Your task to perform on an android device: create a new album in the google photos Image 0: 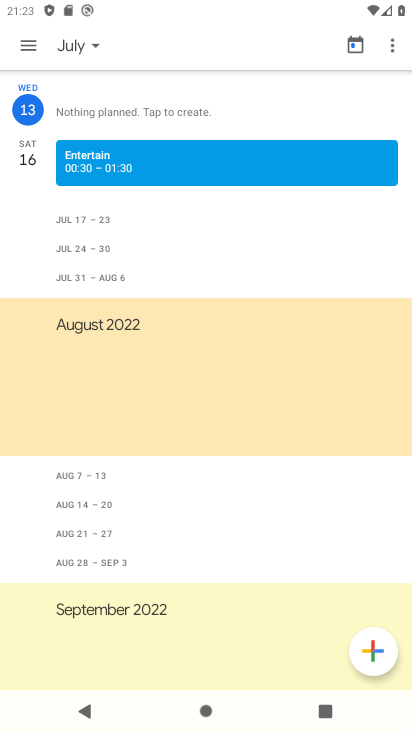
Step 0: press back button
Your task to perform on an android device: create a new album in the google photos Image 1: 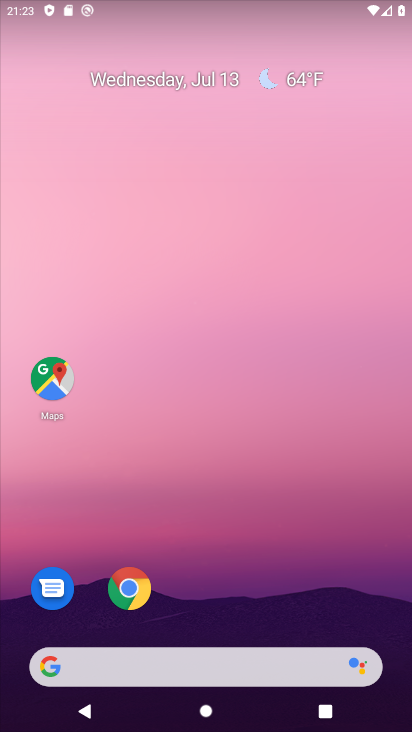
Step 1: drag from (260, 602) to (267, 9)
Your task to perform on an android device: create a new album in the google photos Image 2: 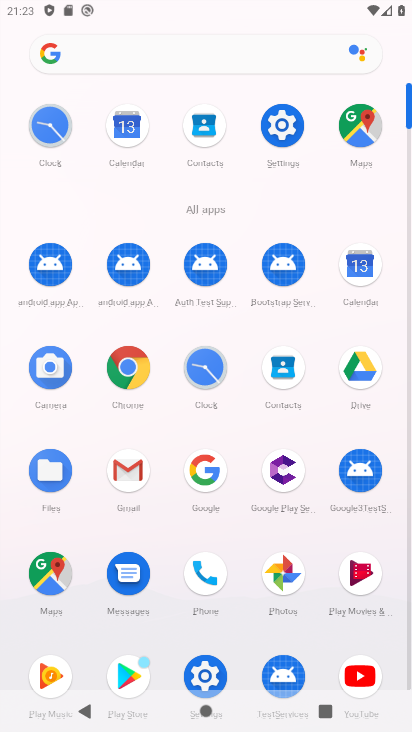
Step 2: click (298, 573)
Your task to perform on an android device: create a new album in the google photos Image 3: 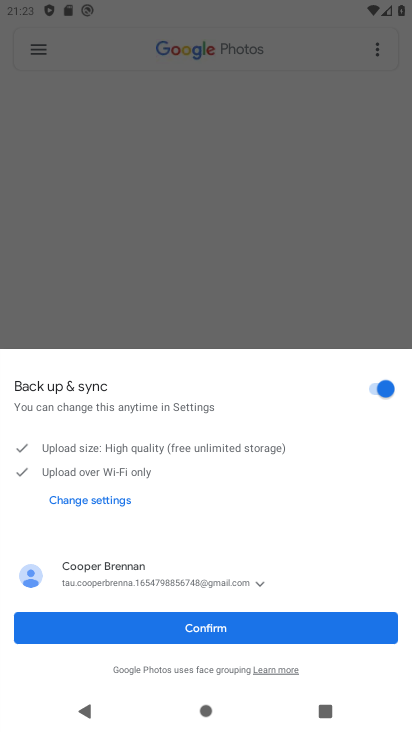
Step 3: click (240, 634)
Your task to perform on an android device: create a new album in the google photos Image 4: 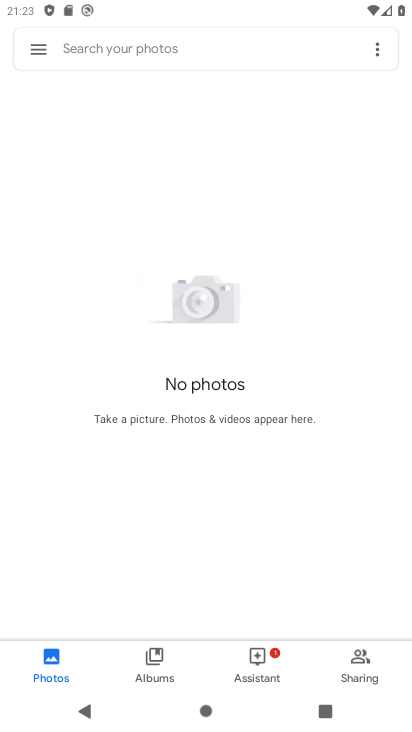
Step 4: click (159, 666)
Your task to perform on an android device: create a new album in the google photos Image 5: 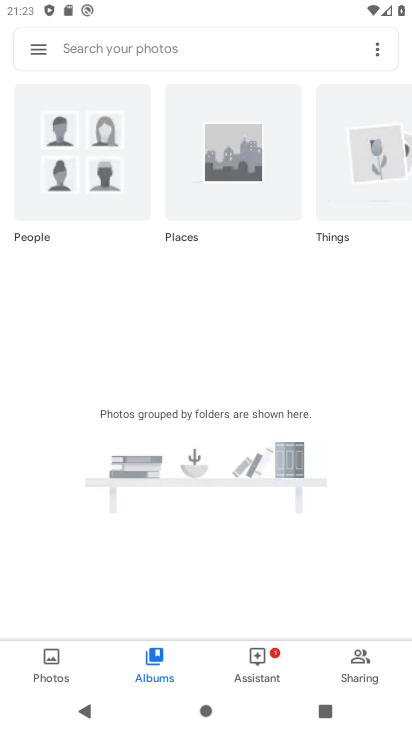
Step 5: task complete